Your task to perform on an android device: visit the assistant section in the google photos Image 0: 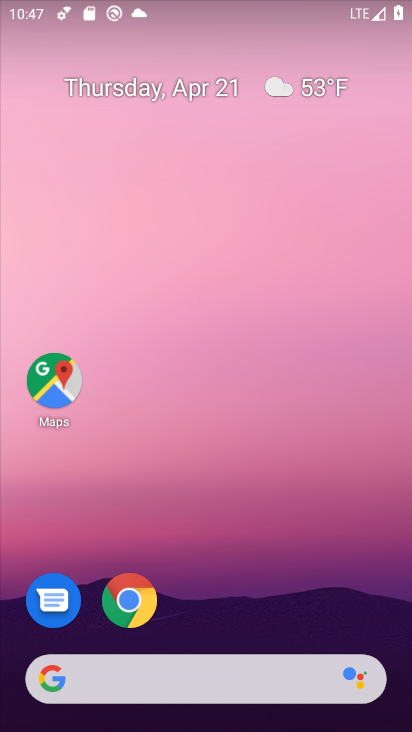
Step 0: drag from (260, 618) to (261, 42)
Your task to perform on an android device: visit the assistant section in the google photos Image 1: 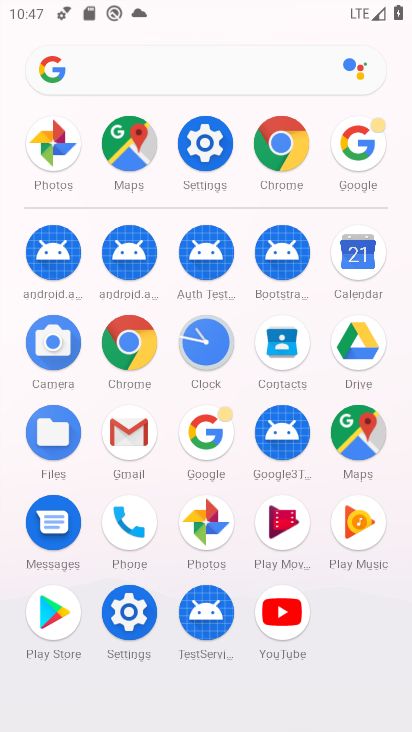
Step 1: click (201, 522)
Your task to perform on an android device: visit the assistant section in the google photos Image 2: 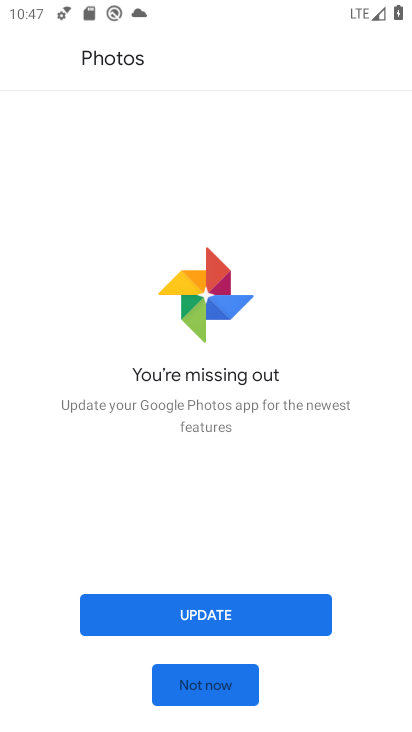
Step 2: click (229, 612)
Your task to perform on an android device: visit the assistant section in the google photos Image 3: 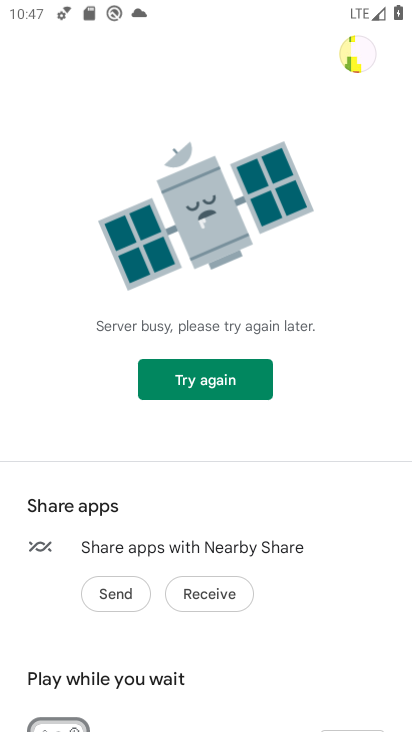
Step 3: click (217, 370)
Your task to perform on an android device: visit the assistant section in the google photos Image 4: 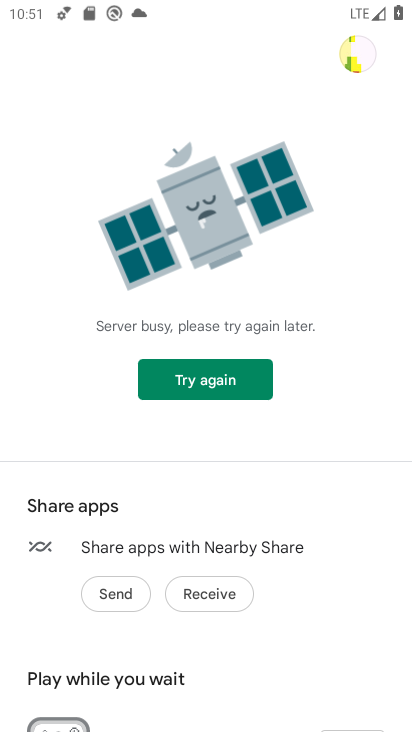
Step 4: task complete